Your task to perform on an android device: Set the phone to "Do not disturb". Image 0: 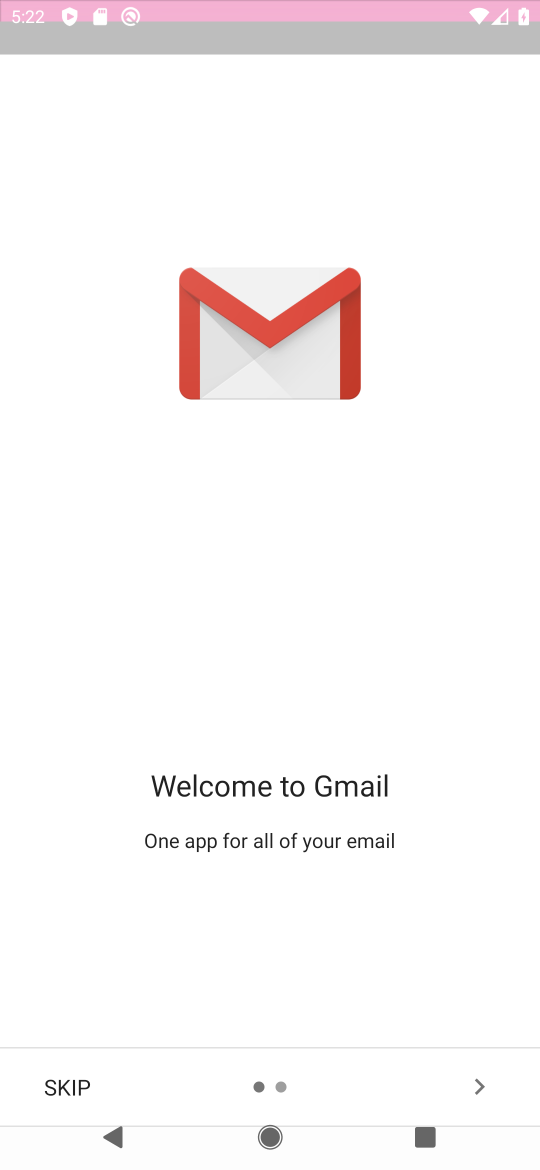
Step 0: press home button
Your task to perform on an android device: Set the phone to "Do not disturb". Image 1: 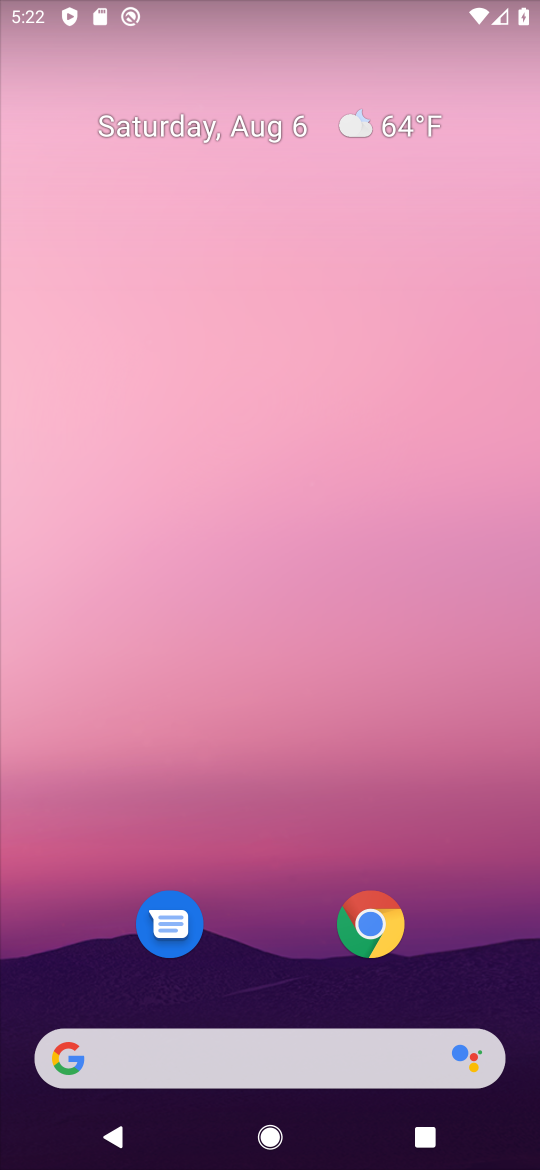
Step 1: drag from (278, 872) to (238, 156)
Your task to perform on an android device: Set the phone to "Do not disturb". Image 2: 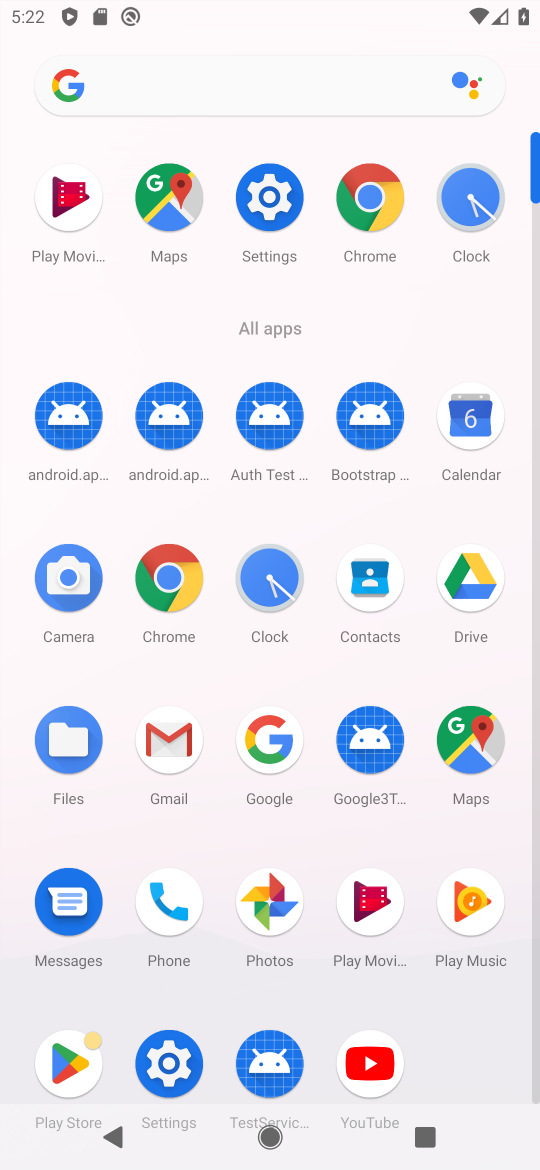
Step 2: click (270, 189)
Your task to perform on an android device: Set the phone to "Do not disturb". Image 3: 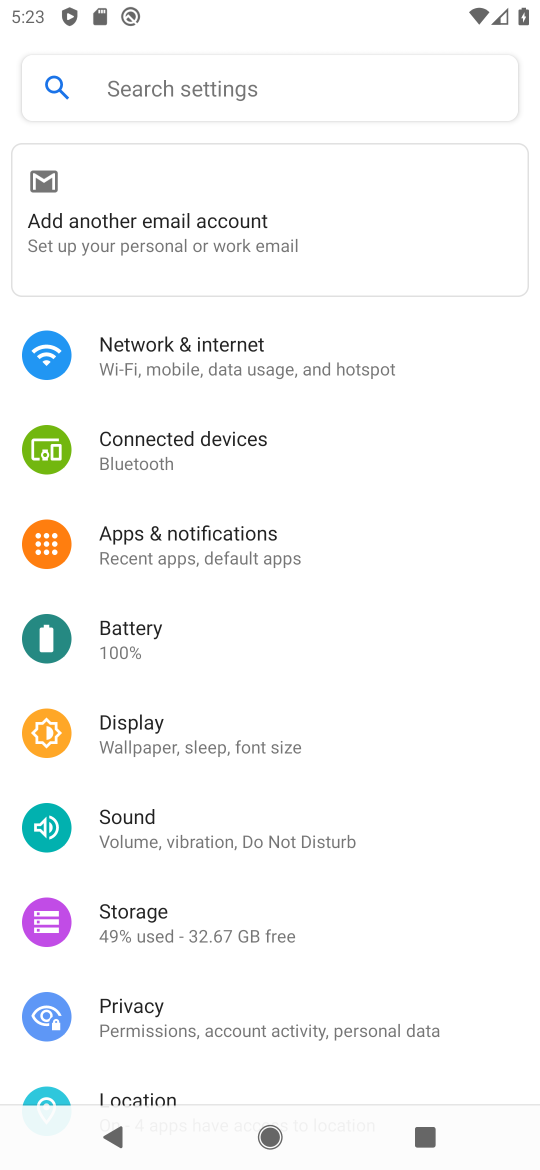
Step 3: click (131, 814)
Your task to perform on an android device: Set the phone to "Do not disturb". Image 4: 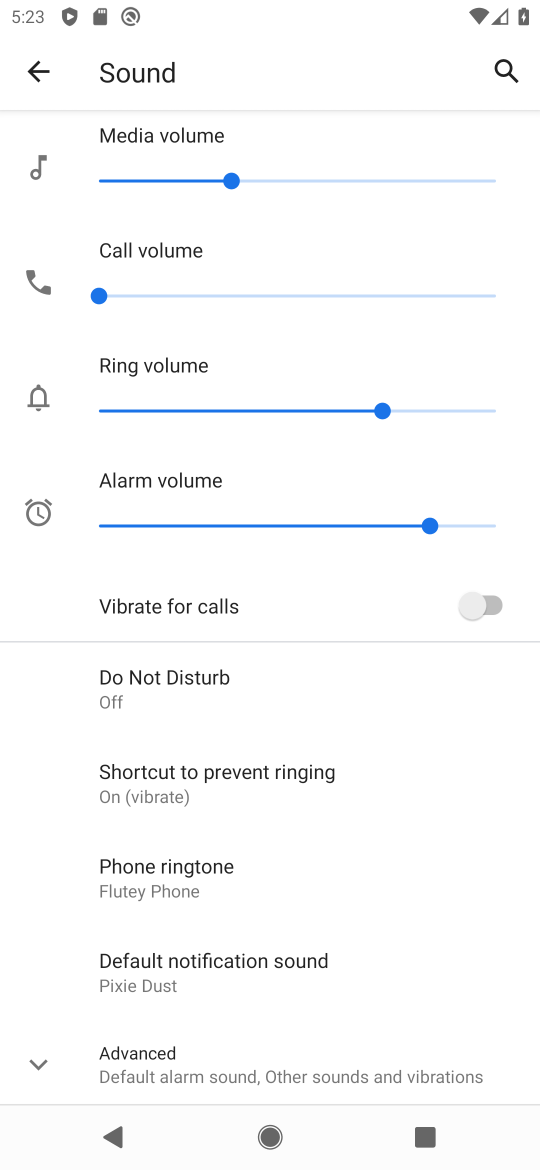
Step 4: click (147, 680)
Your task to perform on an android device: Set the phone to "Do not disturb". Image 5: 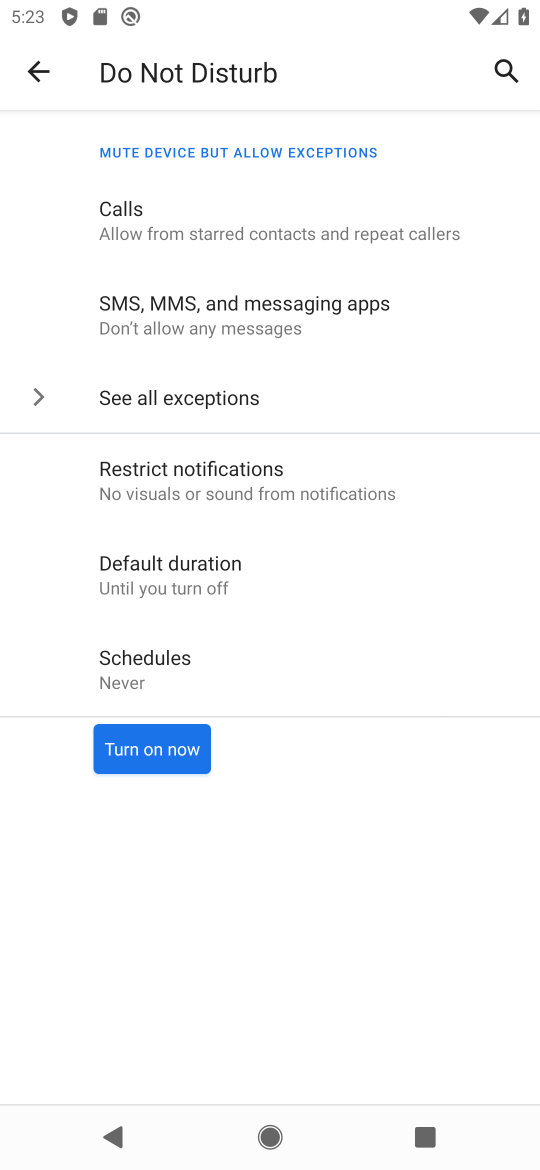
Step 5: click (134, 742)
Your task to perform on an android device: Set the phone to "Do not disturb". Image 6: 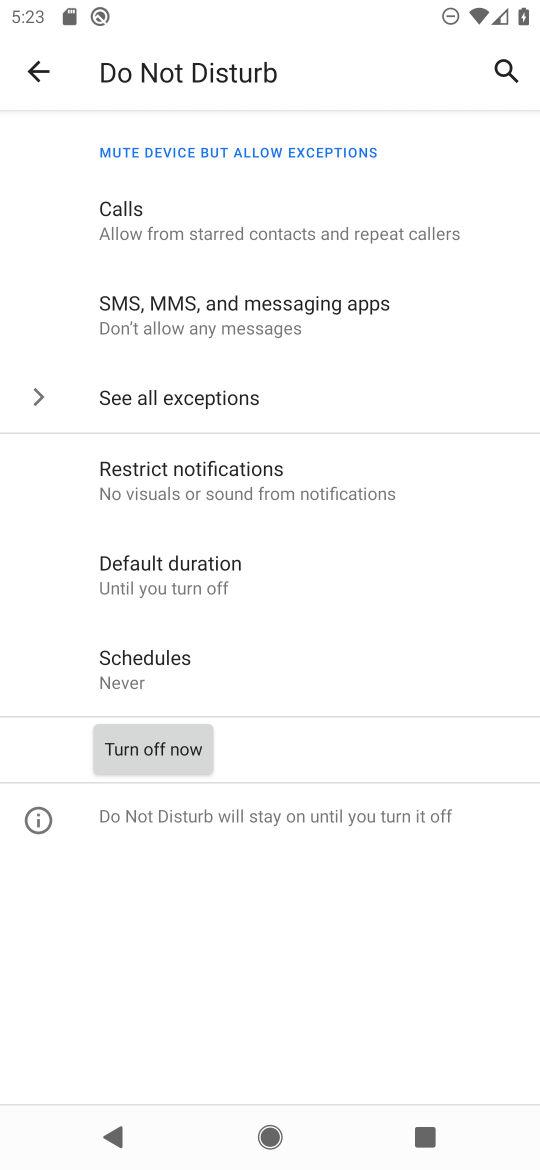
Step 6: task complete